Your task to perform on an android device: Show the shopping cart on walmart.com. Image 0: 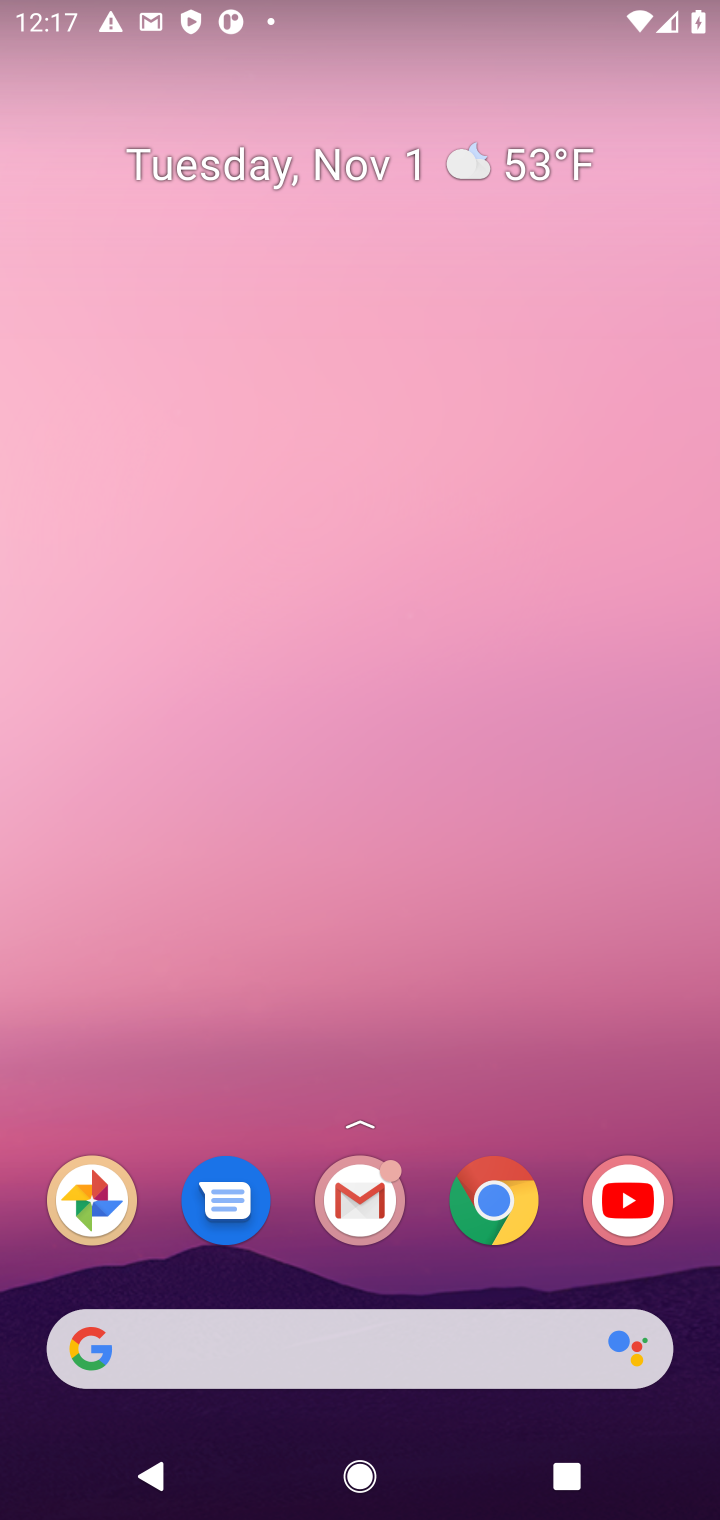
Step 0: click (493, 1196)
Your task to perform on an android device: Show the shopping cart on walmart.com. Image 1: 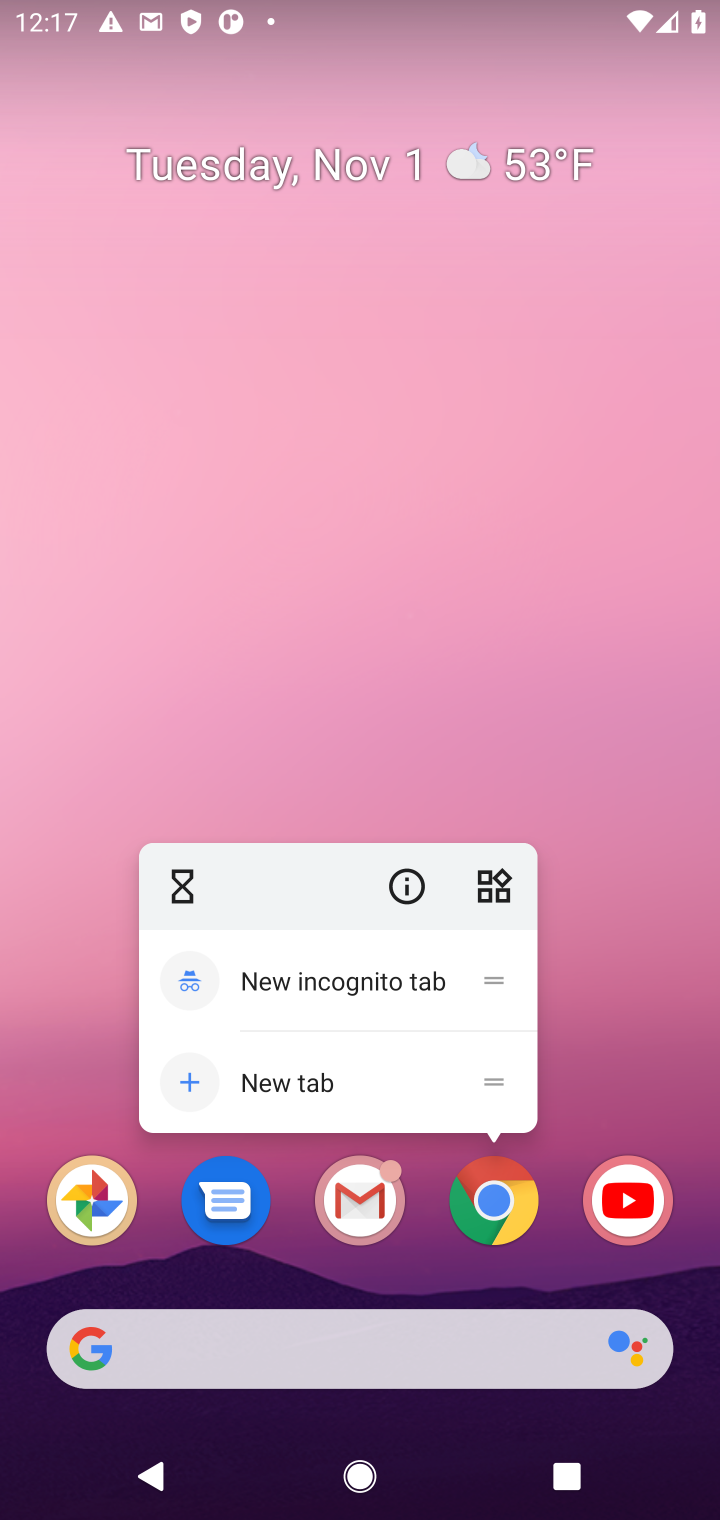
Step 1: click (493, 1202)
Your task to perform on an android device: Show the shopping cart on walmart.com. Image 2: 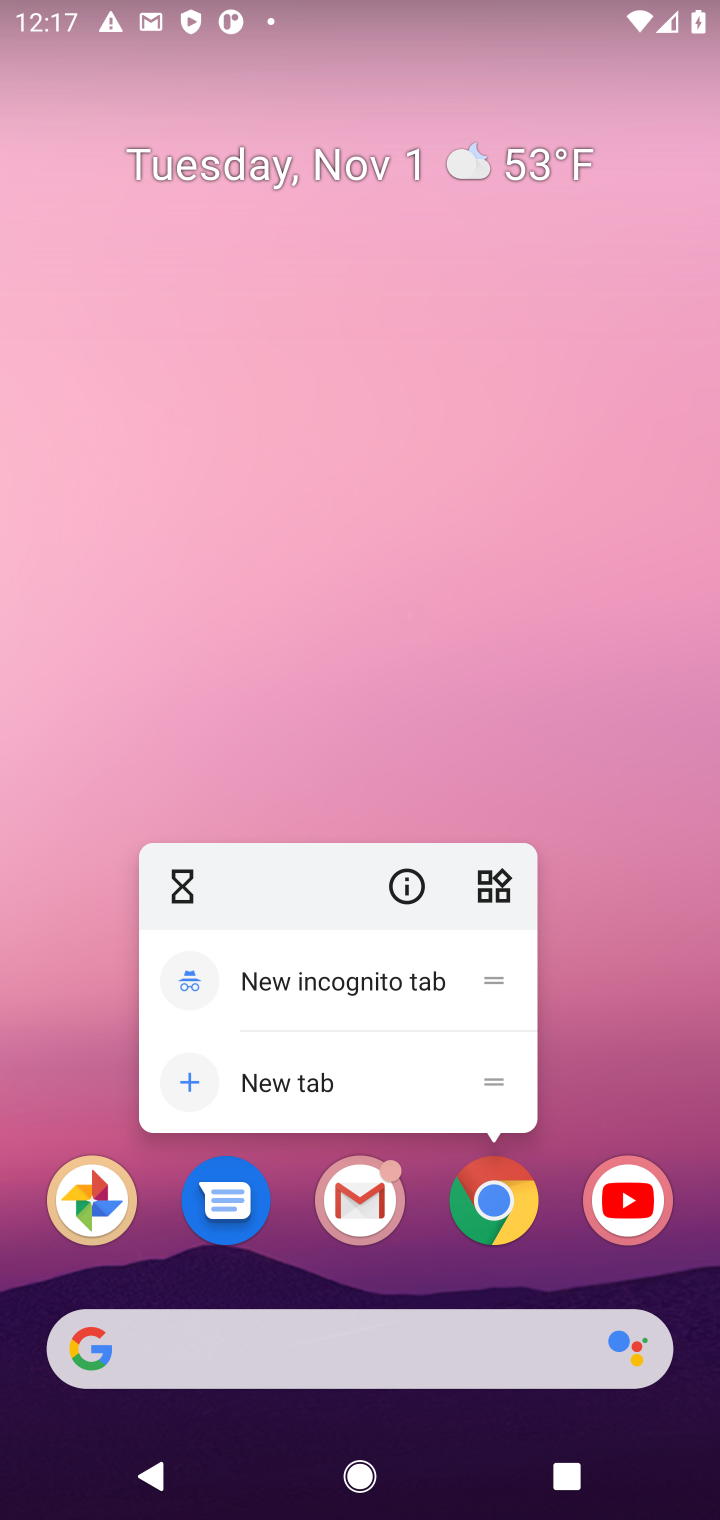
Step 2: click (496, 1213)
Your task to perform on an android device: Show the shopping cart on walmart.com. Image 3: 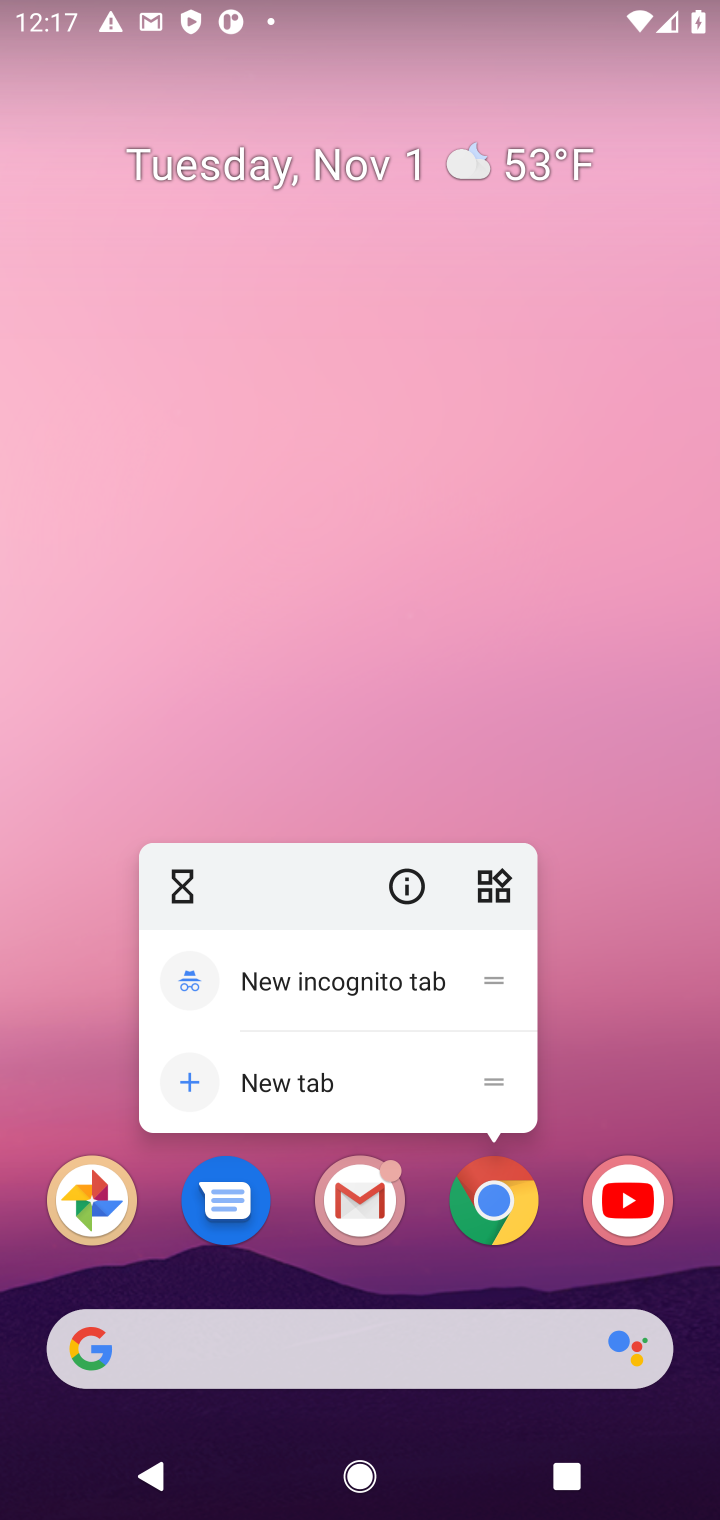
Step 3: click (500, 1200)
Your task to perform on an android device: Show the shopping cart on walmart.com. Image 4: 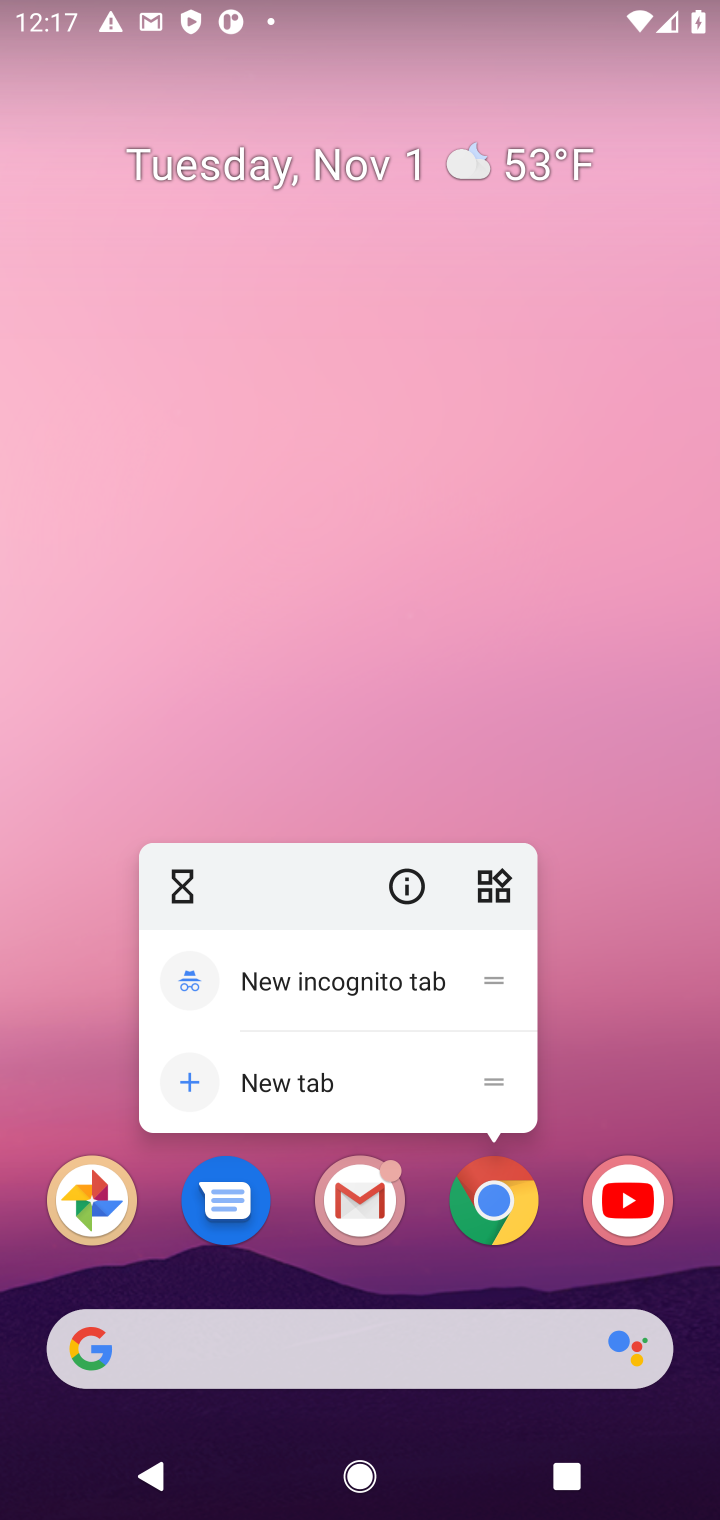
Step 4: click (500, 1211)
Your task to perform on an android device: Show the shopping cart on walmart.com. Image 5: 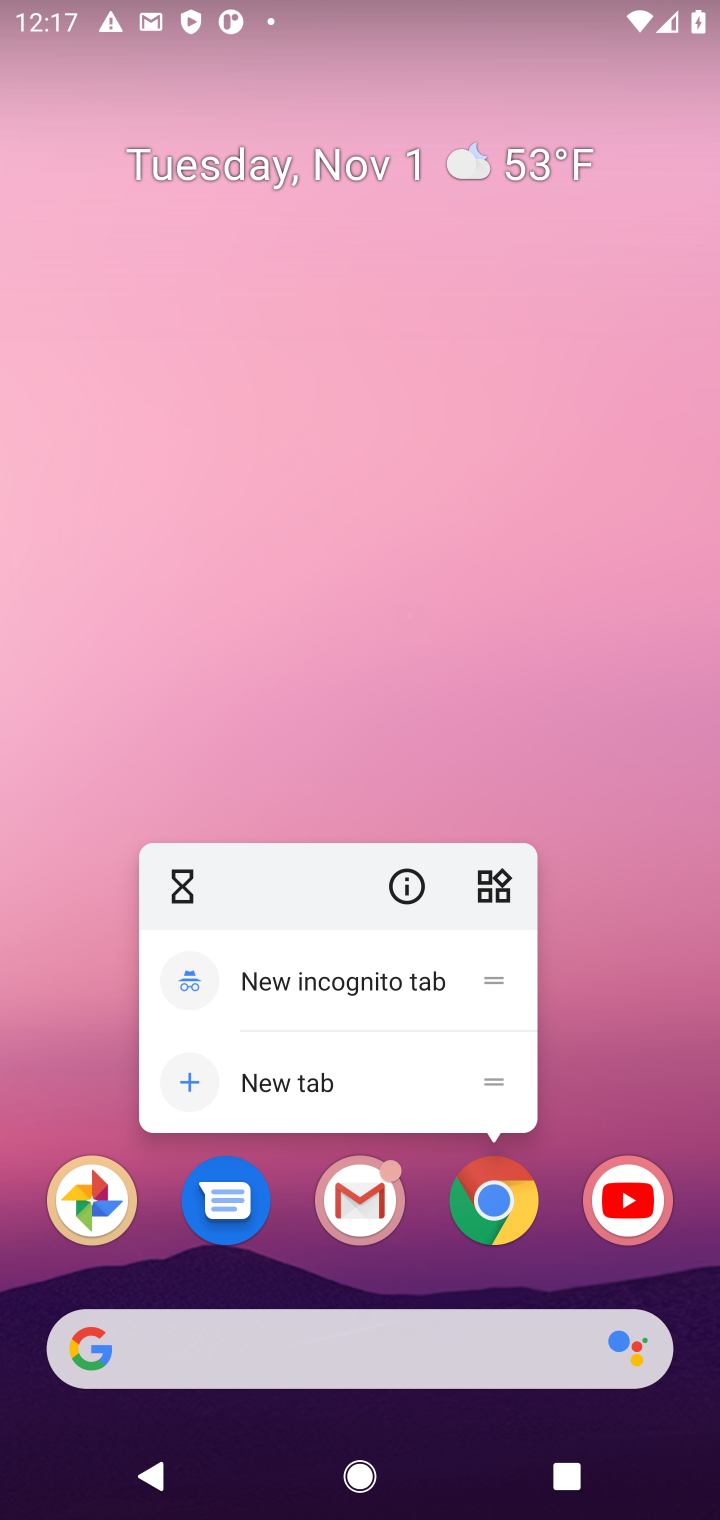
Step 5: click (500, 1227)
Your task to perform on an android device: Show the shopping cart on walmart.com. Image 6: 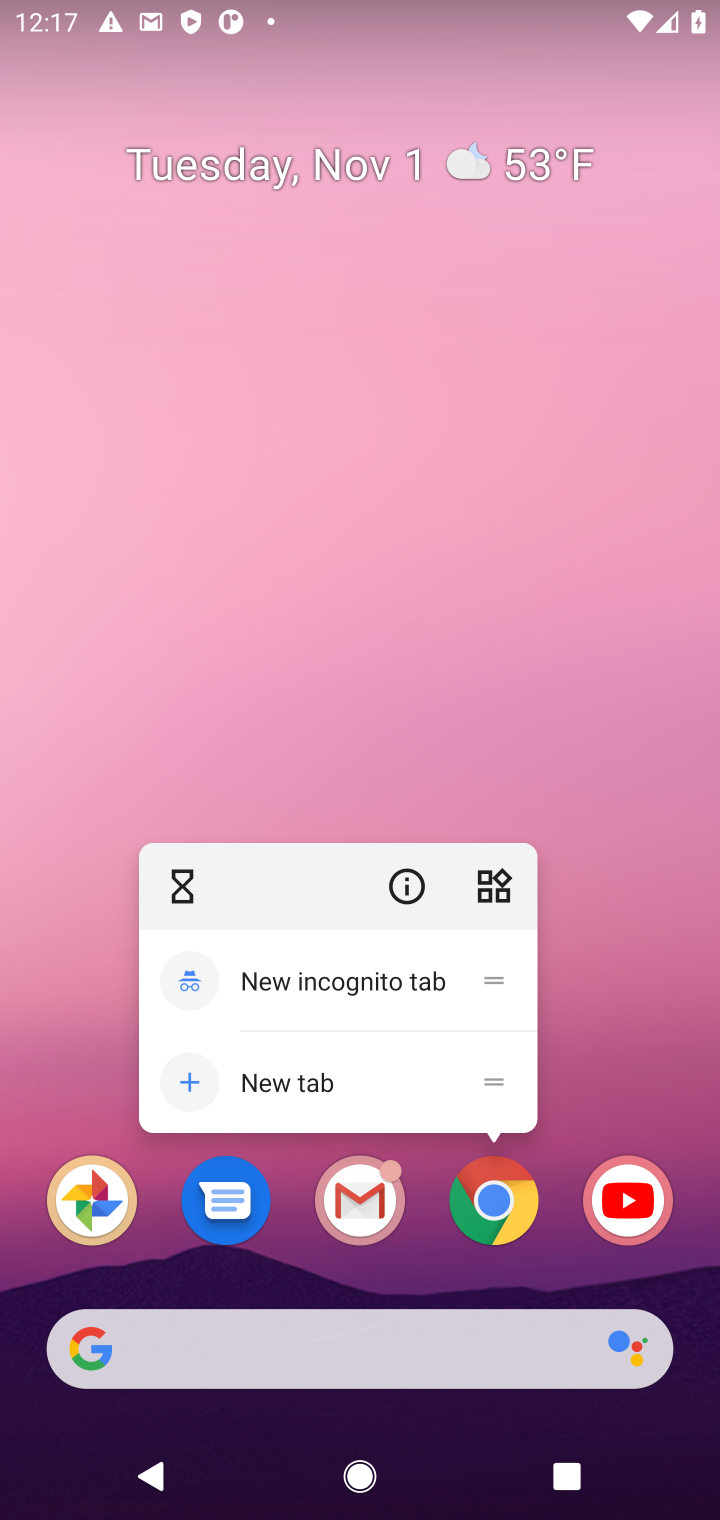
Step 6: click (496, 1206)
Your task to perform on an android device: Show the shopping cart on walmart.com. Image 7: 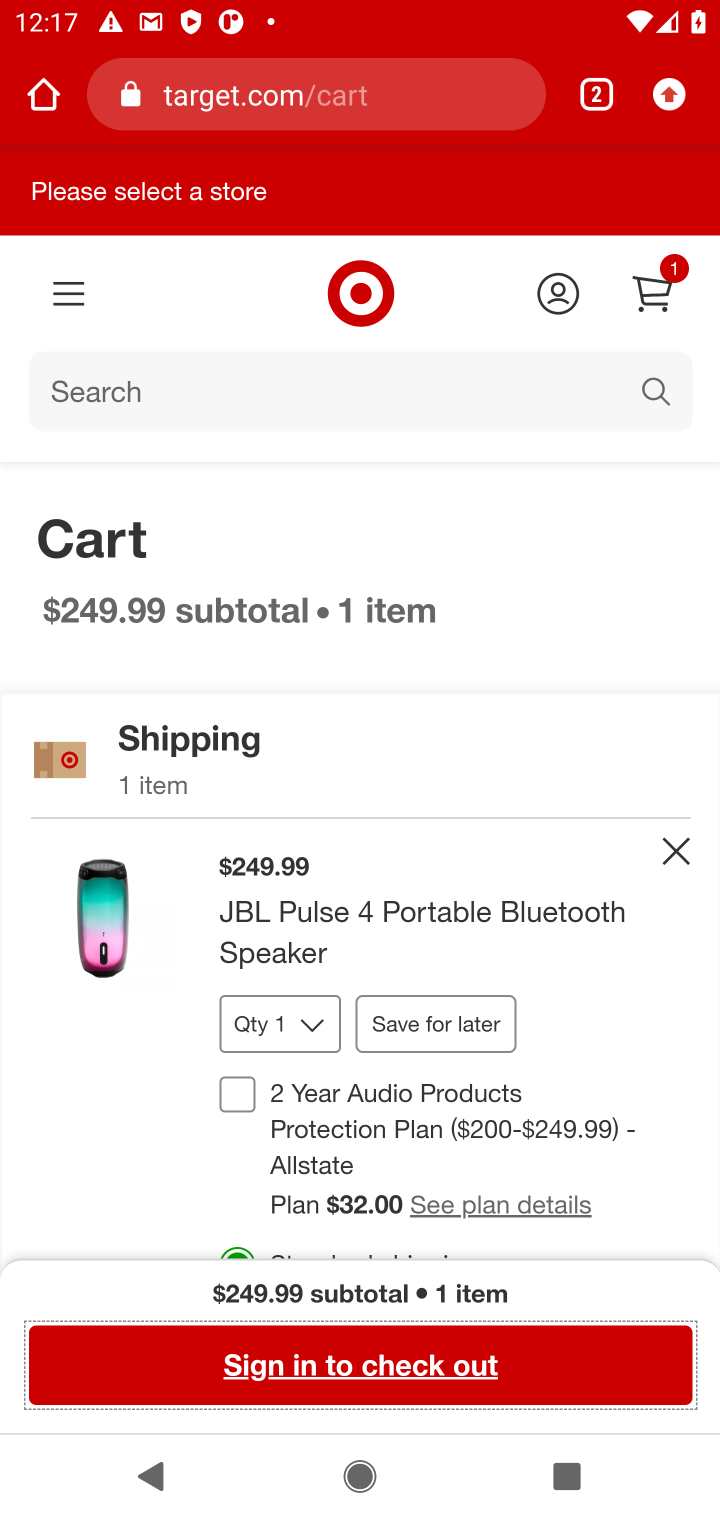
Step 7: click (404, 127)
Your task to perform on an android device: Show the shopping cart on walmart.com. Image 8: 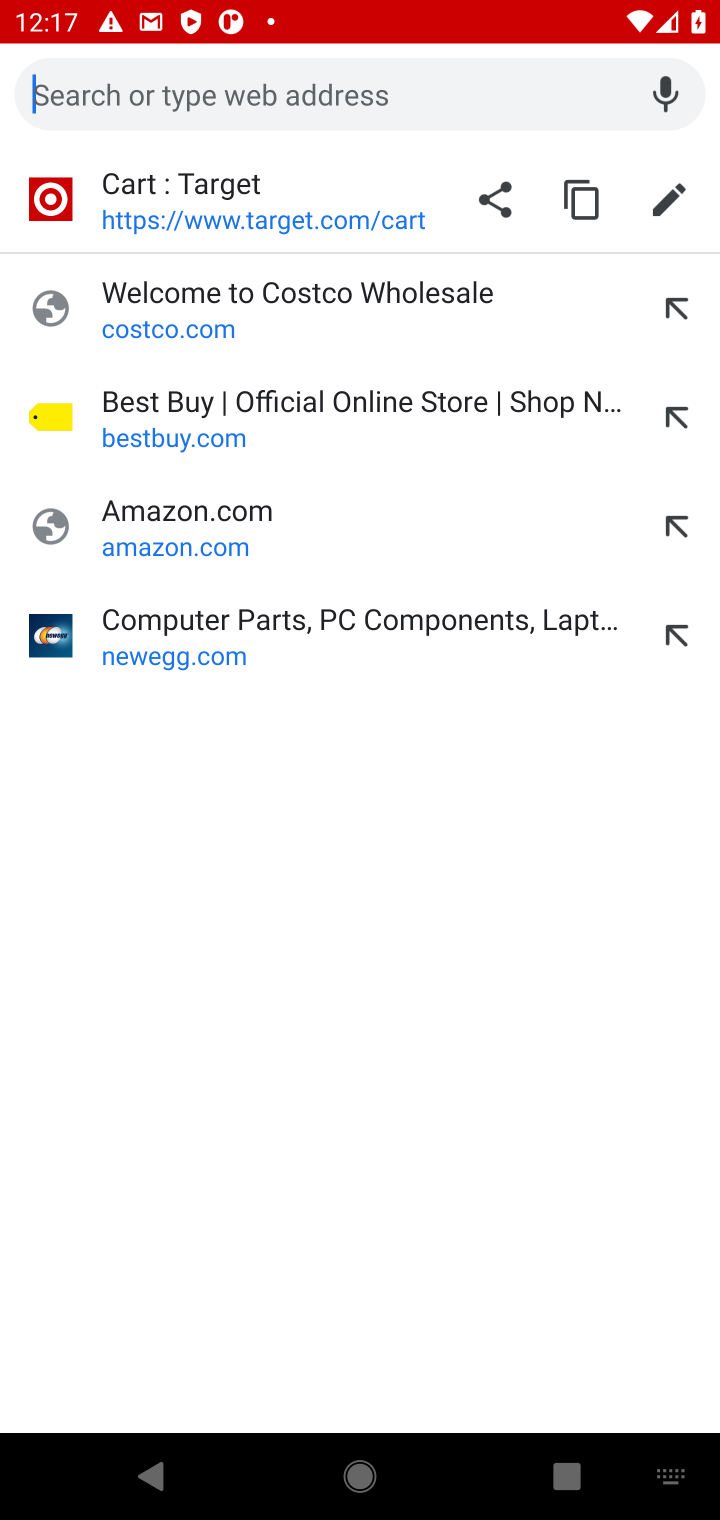
Step 8: type "walmart.com"
Your task to perform on an android device: Show the shopping cart on walmart.com. Image 9: 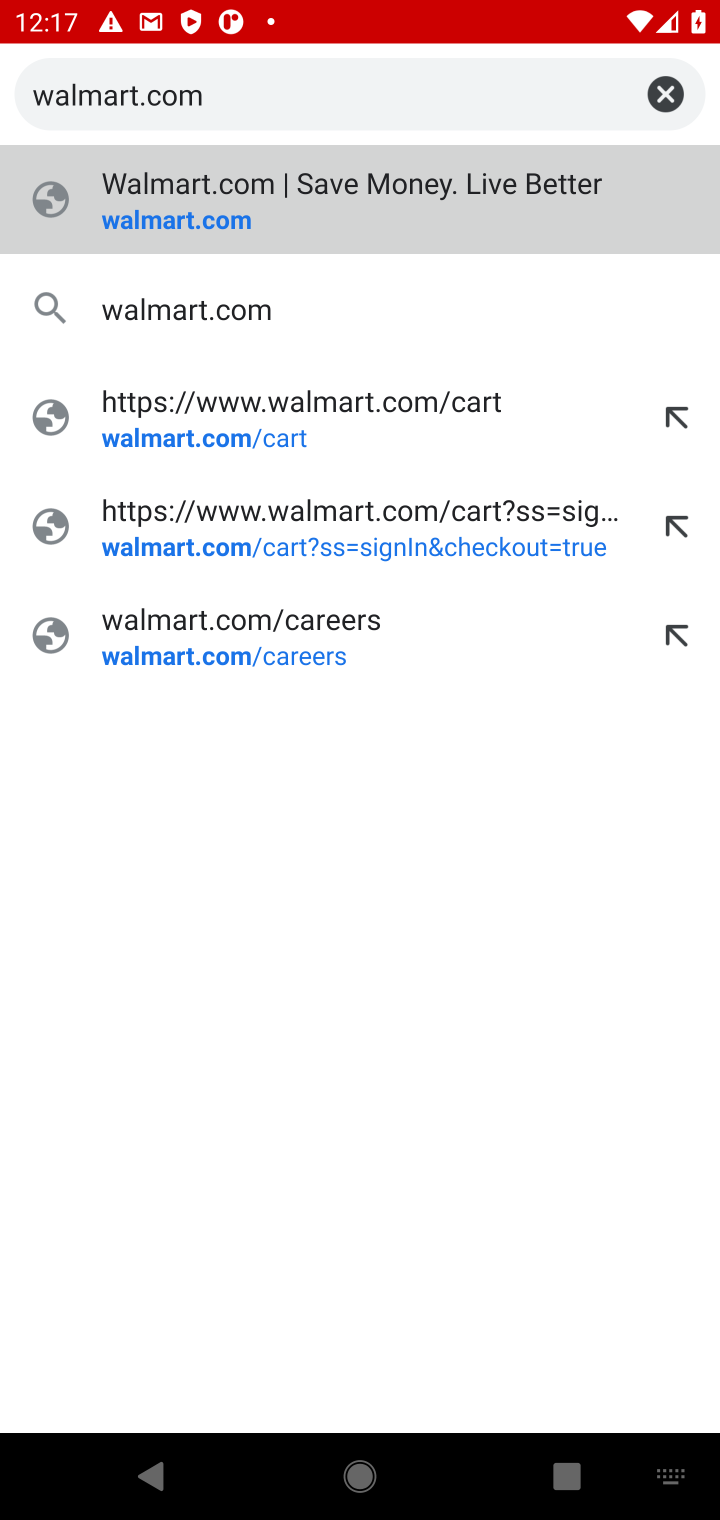
Step 9: type ""
Your task to perform on an android device: Show the shopping cart on walmart.com. Image 10: 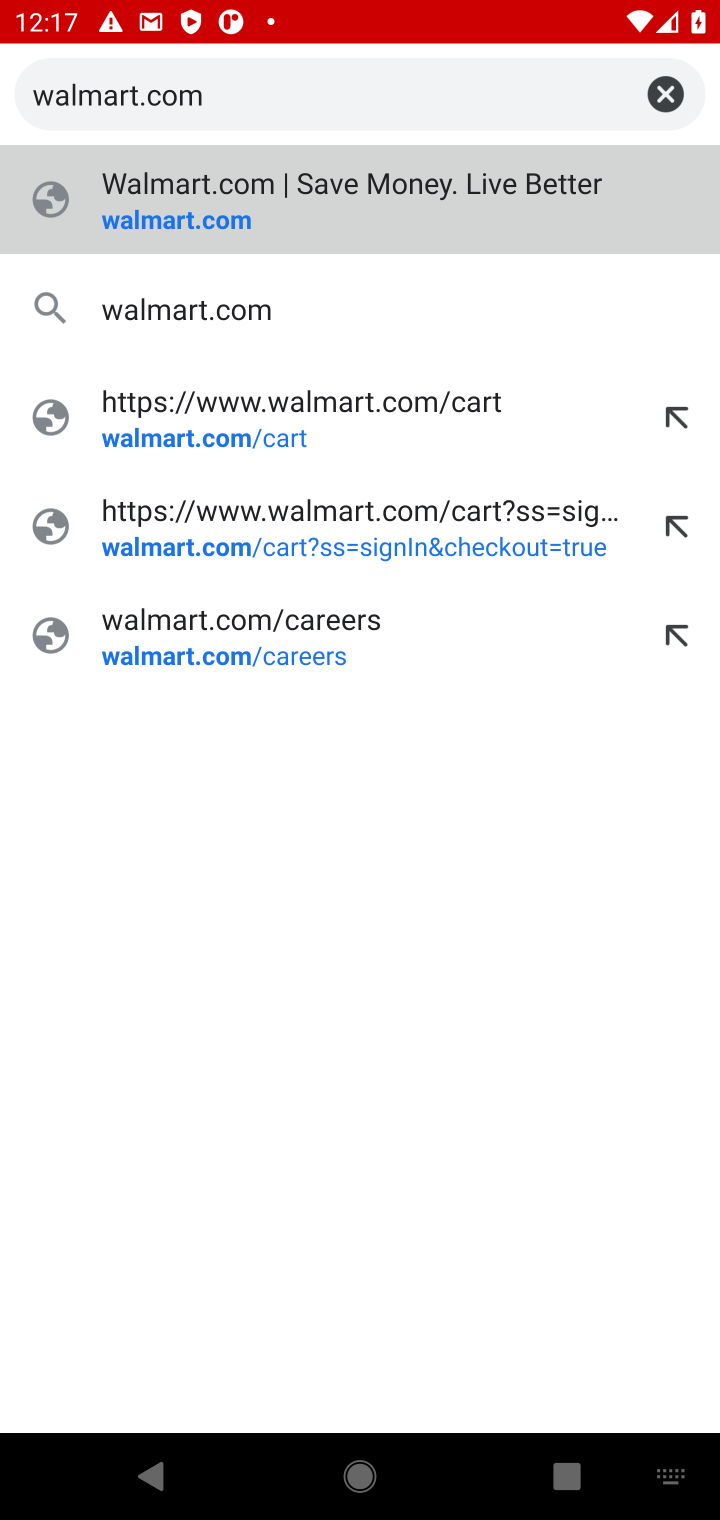
Step 10: click (249, 229)
Your task to perform on an android device: Show the shopping cart on walmart.com. Image 11: 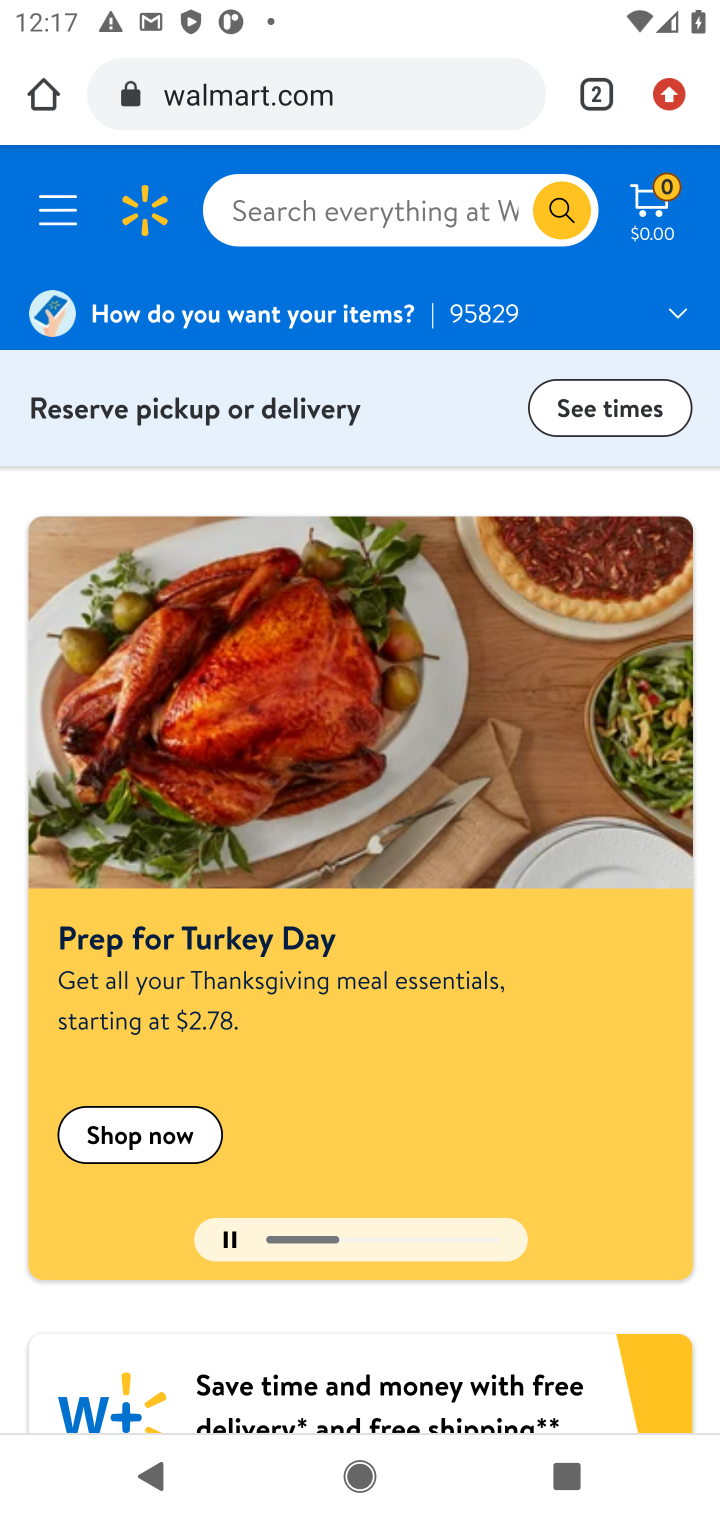
Step 11: click (684, 213)
Your task to perform on an android device: Show the shopping cart on walmart.com. Image 12: 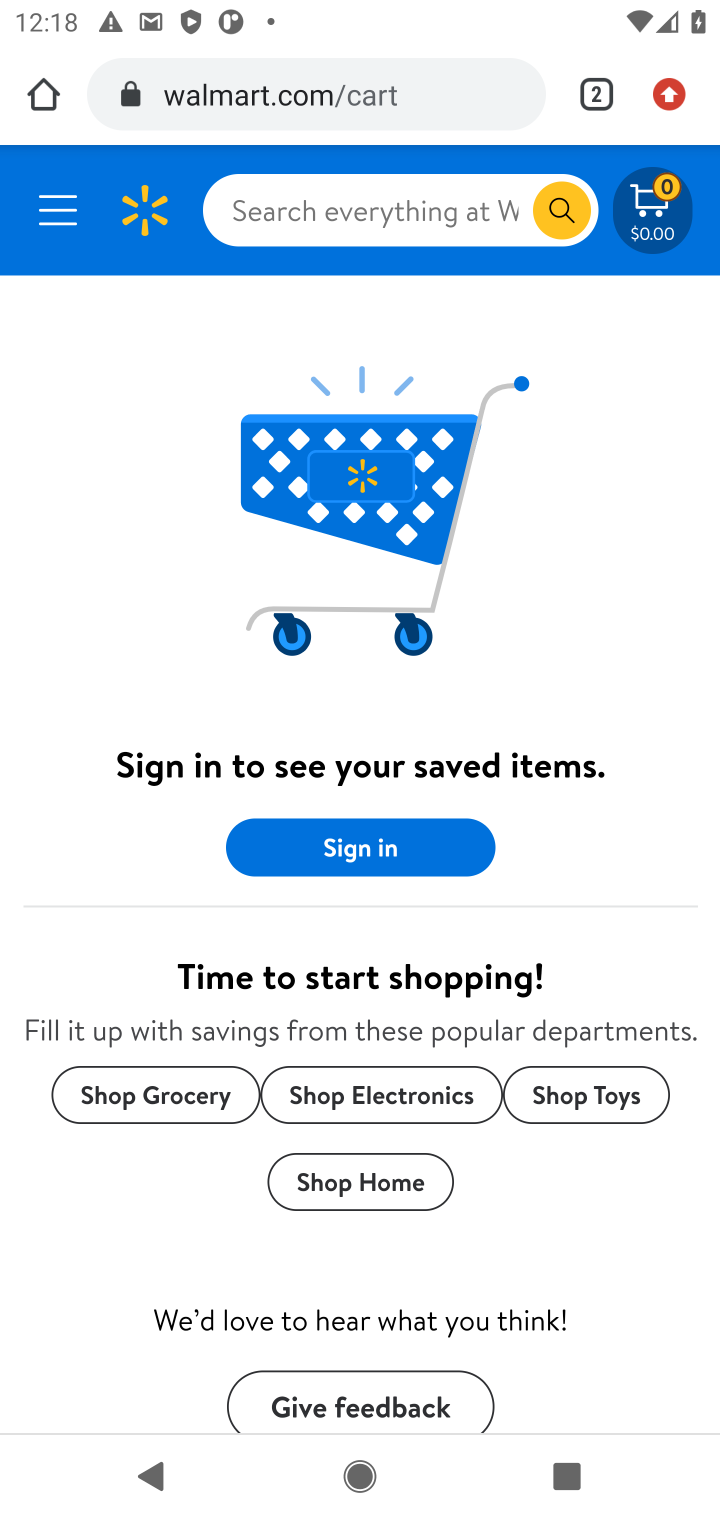
Step 12: task complete